Your task to perform on an android device: check android version Image 0: 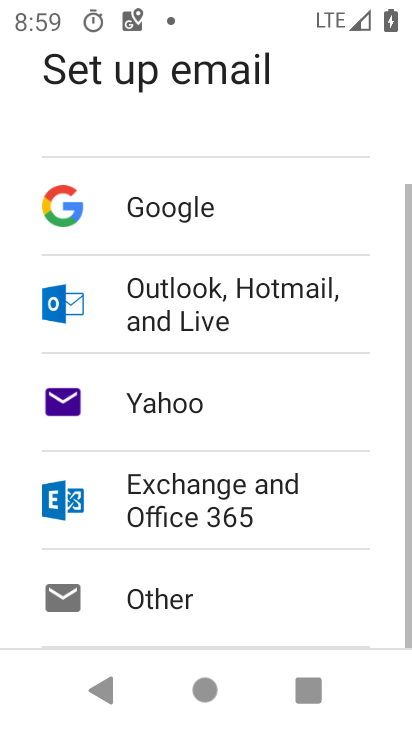
Step 0: press home button
Your task to perform on an android device: check android version Image 1: 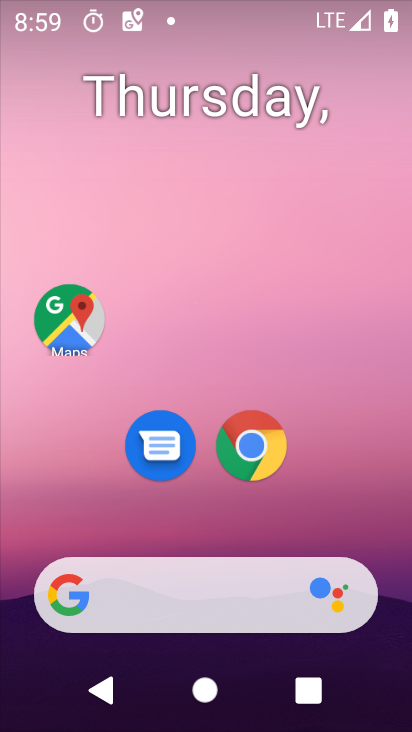
Step 1: drag from (179, 535) to (180, 223)
Your task to perform on an android device: check android version Image 2: 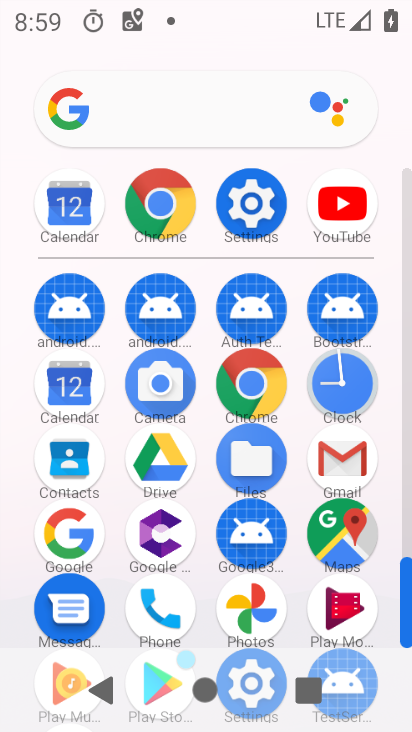
Step 2: click (252, 201)
Your task to perform on an android device: check android version Image 3: 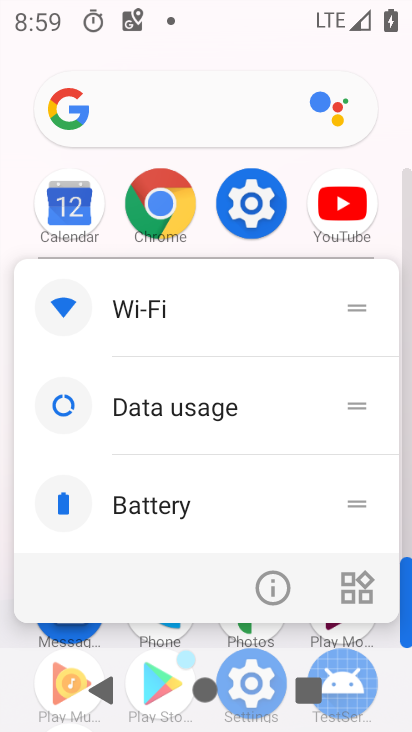
Step 3: click (275, 596)
Your task to perform on an android device: check android version Image 4: 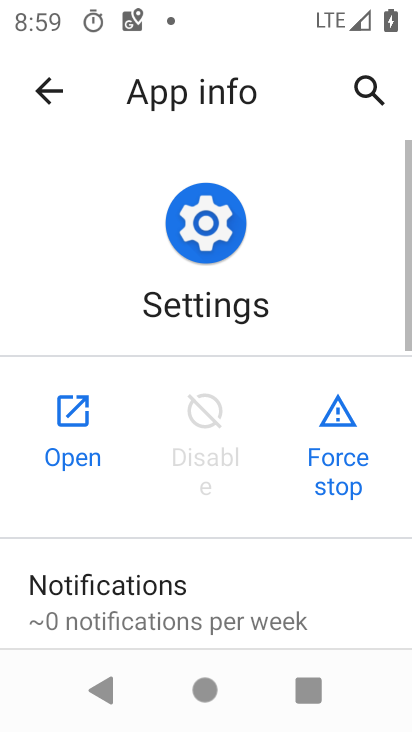
Step 4: click (83, 426)
Your task to perform on an android device: check android version Image 5: 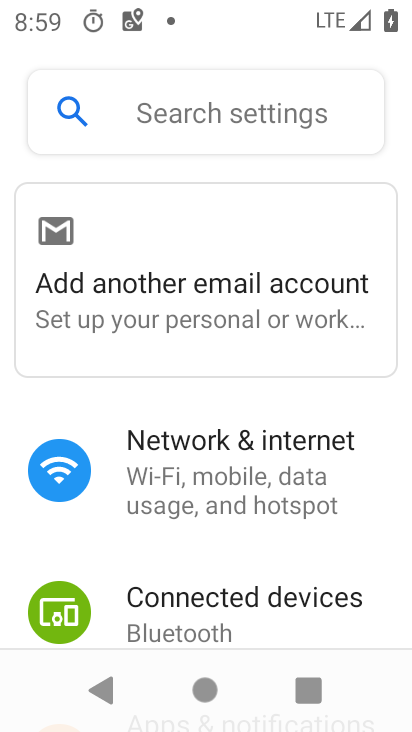
Step 5: drag from (232, 596) to (299, 195)
Your task to perform on an android device: check android version Image 6: 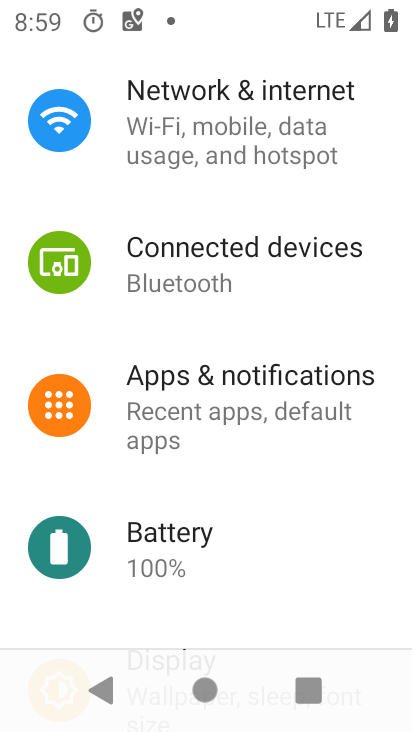
Step 6: drag from (225, 588) to (275, 171)
Your task to perform on an android device: check android version Image 7: 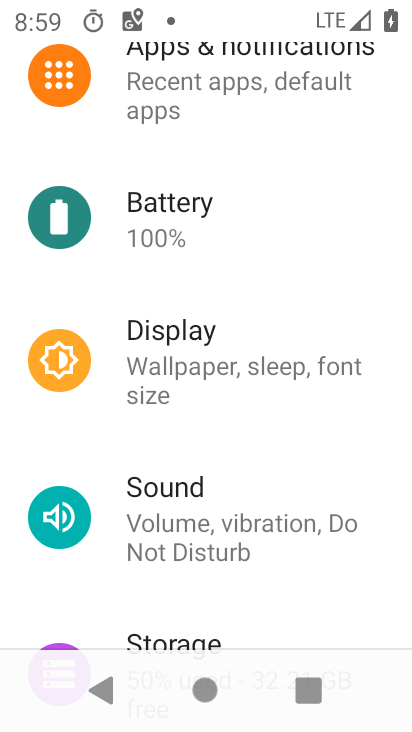
Step 7: drag from (193, 595) to (270, 91)
Your task to perform on an android device: check android version Image 8: 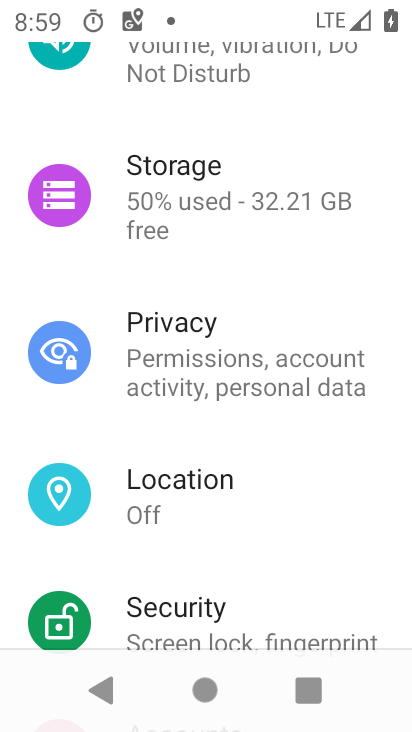
Step 8: drag from (199, 522) to (221, 186)
Your task to perform on an android device: check android version Image 9: 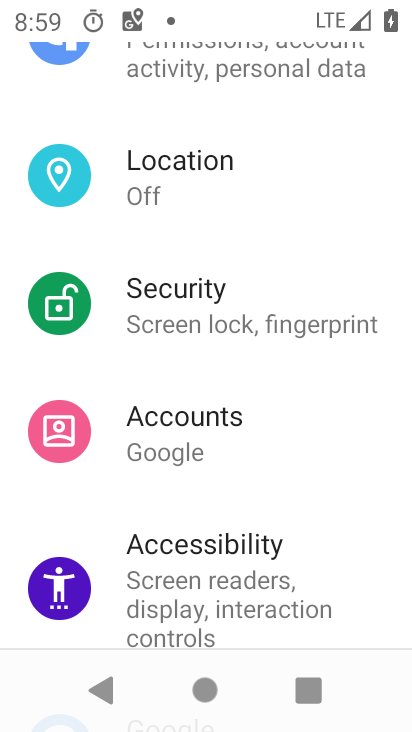
Step 9: drag from (195, 559) to (223, 173)
Your task to perform on an android device: check android version Image 10: 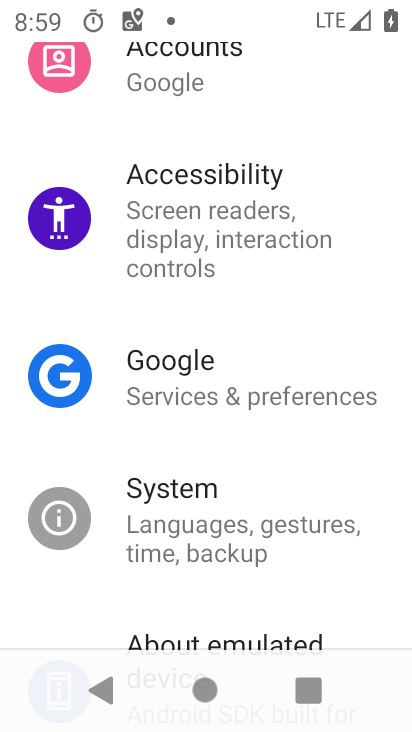
Step 10: drag from (227, 545) to (251, 166)
Your task to perform on an android device: check android version Image 11: 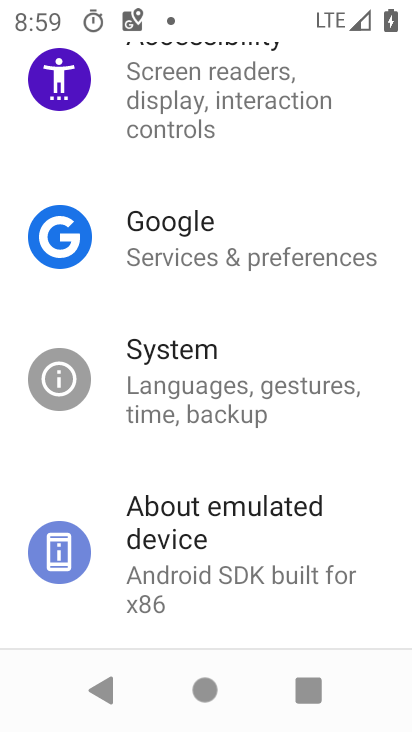
Step 11: click (219, 547)
Your task to perform on an android device: check android version Image 12: 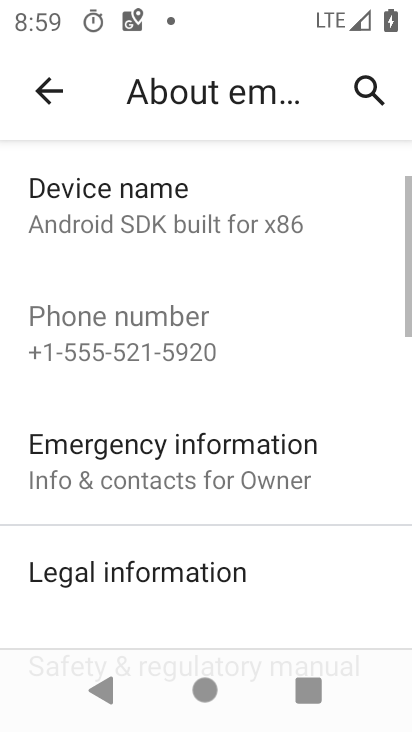
Step 12: drag from (242, 589) to (239, 308)
Your task to perform on an android device: check android version Image 13: 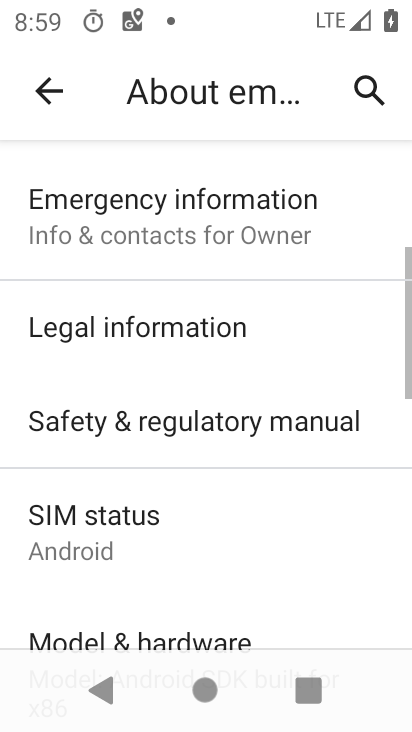
Step 13: drag from (224, 560) to (266, 234)
Your task to perform on an android device: check android version Image 14: 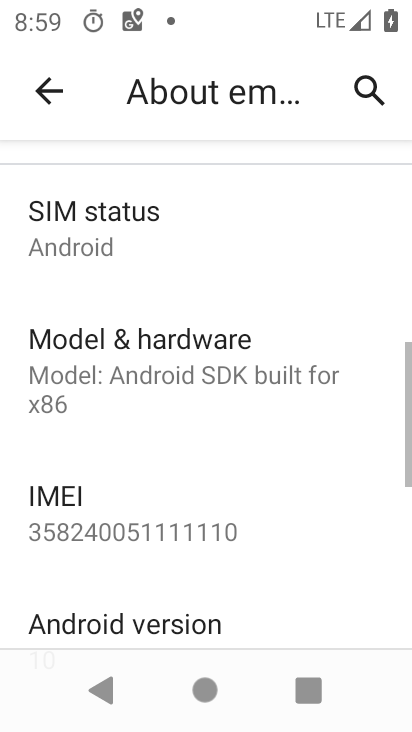
Step 14: drag from (208, 559) to (223, 315)
Your task to perform on an android device: check android version Image 15: 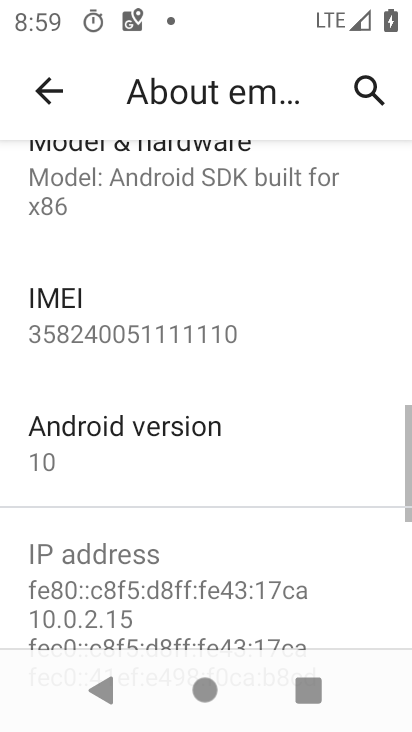
Step 15: click (167, 432)
Your task to perform on an android device: check android version Image 16: 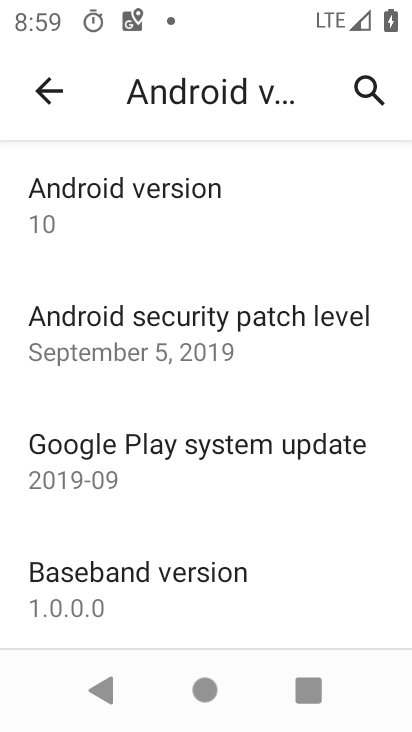
Step 16: task complete